Your task to perform on an android device: all mails in gmail Image 0: 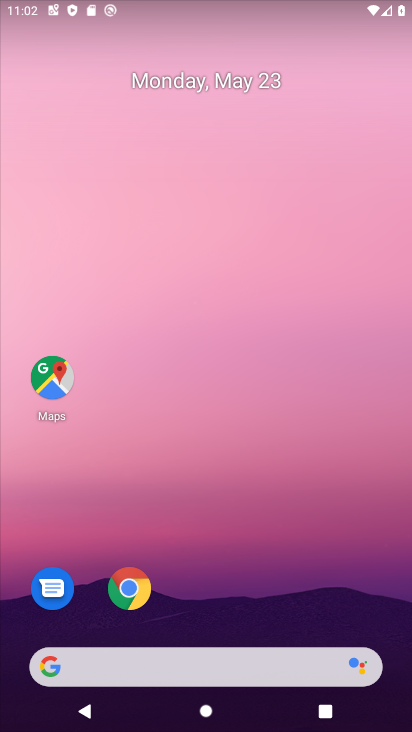
Step 0: drag from (269, 570) to (231, 165)
Your task to perform on an android device: all mails in gmail Image 1: 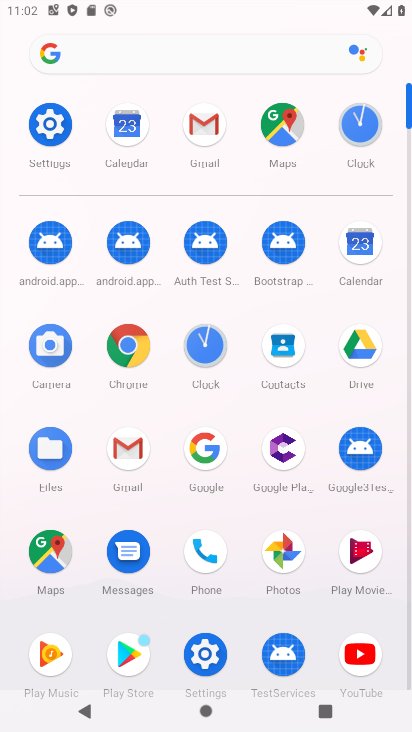
Step 1: click (125, 466)
Your task to perform on an android device: all mails in gmail Image 2: 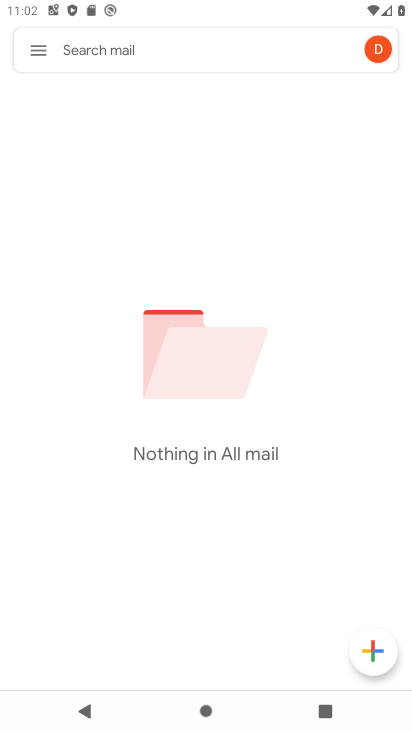
Step 2: task complete